Your task to perform on an android device: open chrome and create a bookmark for the current page Image 0: 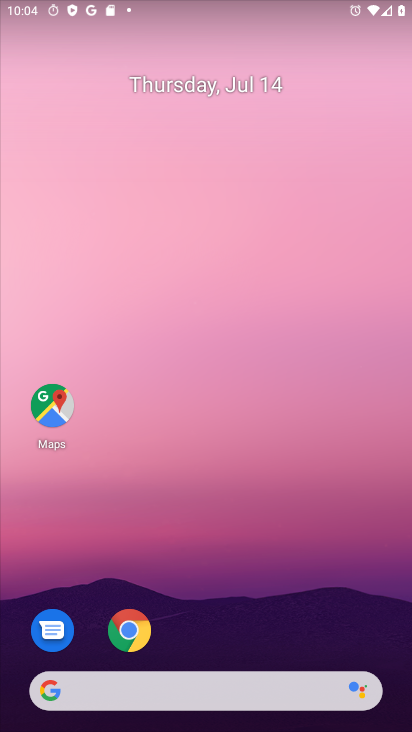
Step 0: click (130, 629)
Your task to perform on an android device: open chrome and create a bookmark for the current page Image 1: 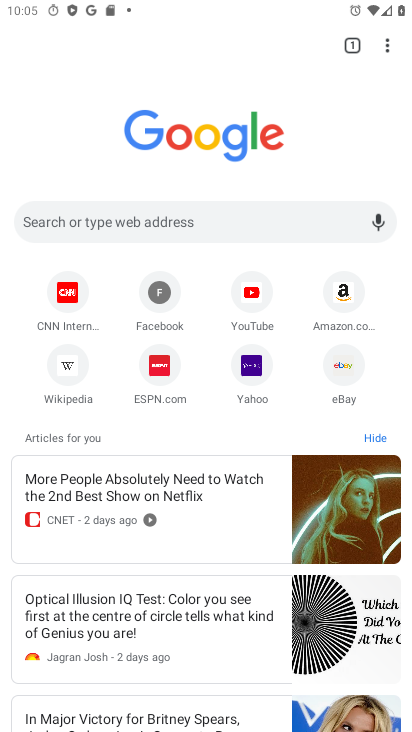
Step 1: click (388, 48)
Your task to perform on an android device: open chrome and create a bookmark for the current page Image 2: 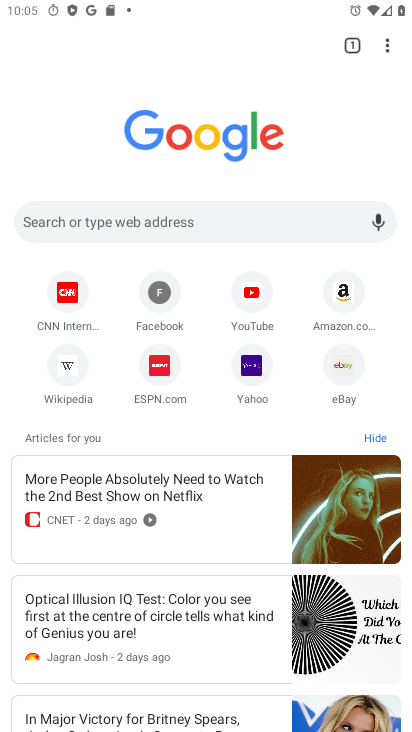
Step 2: click (390, 44)
Your task to perform on an android device: open chrome and create a bookmark for the current page Image 3: 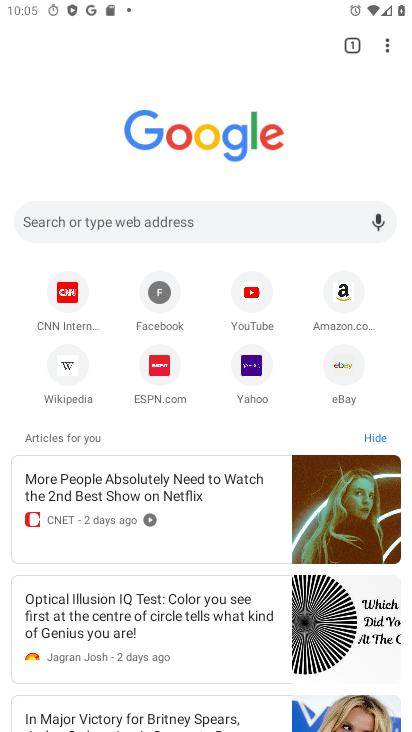
Step 3: click (382, 41)
Your task to perform on an android device: open chrome and create a bookmark for the current page Image 4: 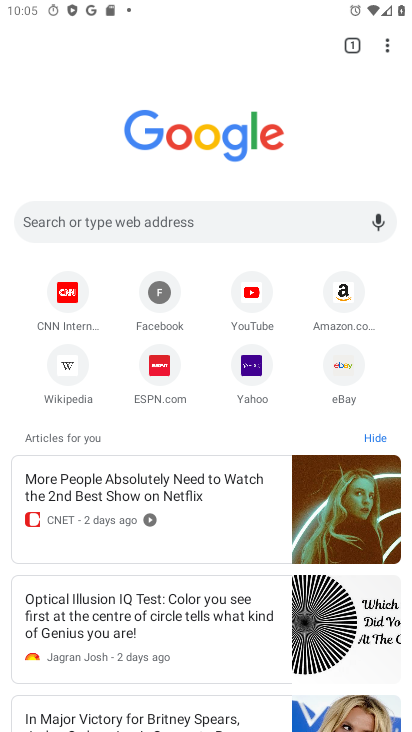
Step 4: click (392, 47)
Your task to perform on an android device: open chrome and create a bookmark for the current page Image 5: 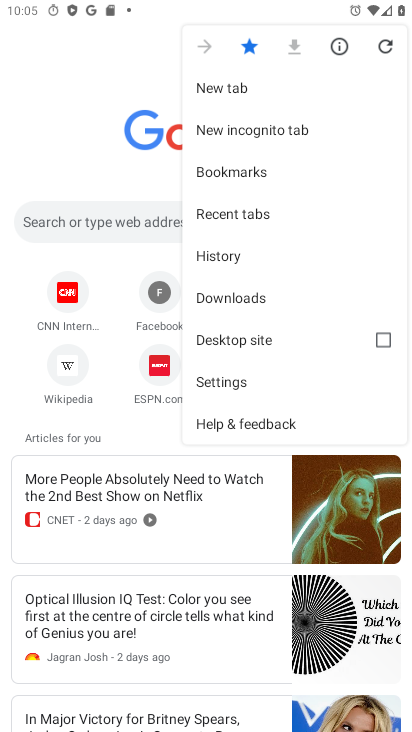
Step 5: click (241, 176)
Your task to perform on an android device: open chrome and create a bookmark for the current page Image 6: 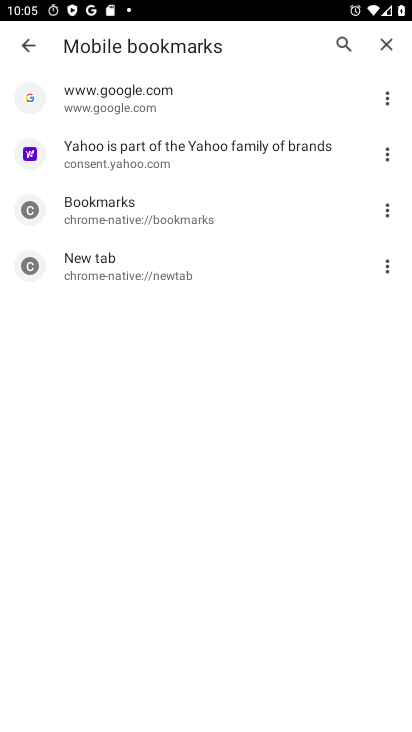
Step 6: task complete